Your task to perform on an android device: toggle data saver in the chrome app Image 0: 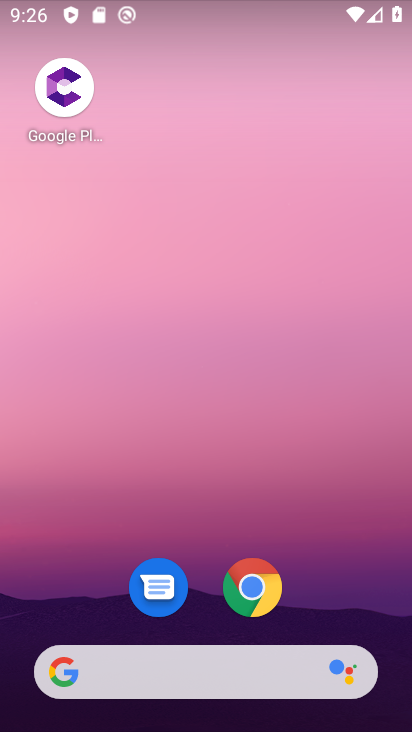
Step 0: click (251, 588)
Your task to perform on an android device: toggle data saver in the chrome app Image 1: 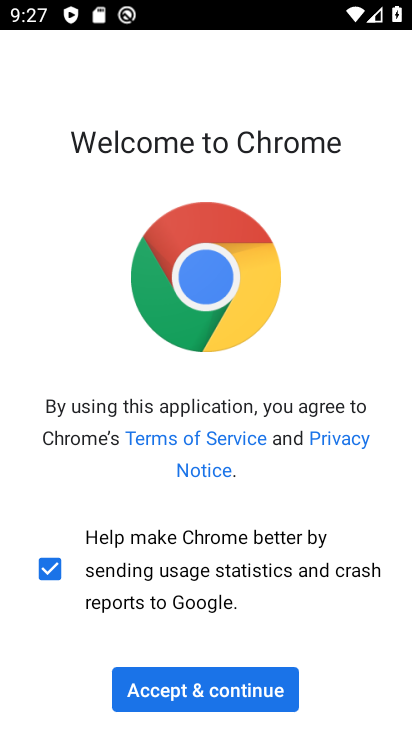
Step 1: click (230, 692)
Your task to perform on an android device: toggle data saver in the chrome app Image 2: 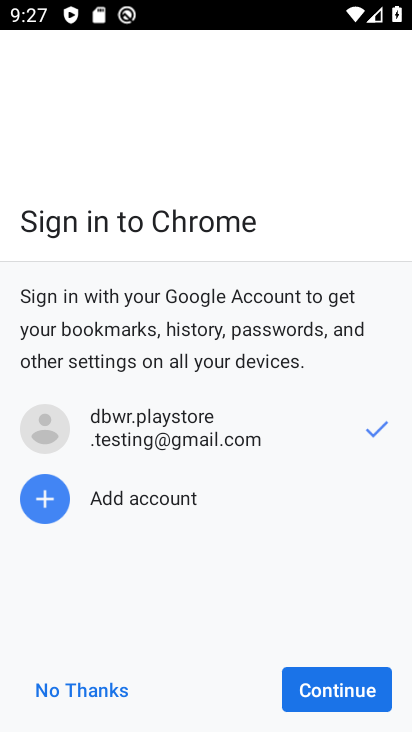
Step 2: click (346, 693)
Your task to perform on an android device: toggle data saver in the chrome app Image 3: 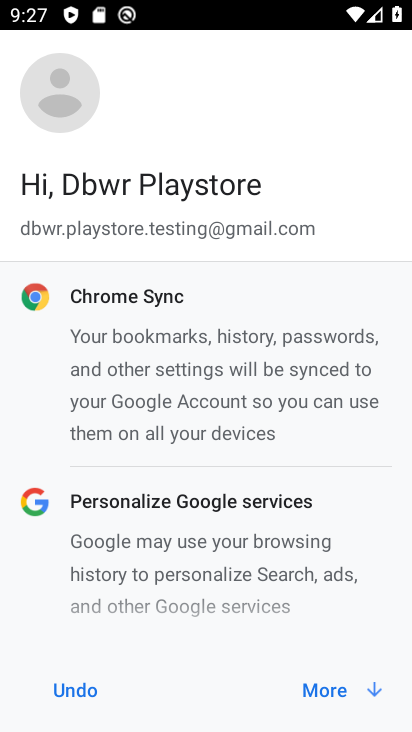
Step 3: click (346, 693)
Your task to perform on an android device: toggle data saver in the chrome app Image 4: 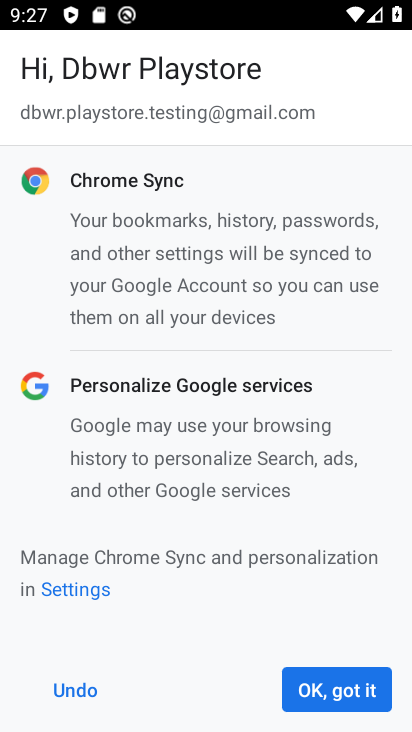
Step 4: click (346, 693)
Your task to perform on an android device: toggle data saver in the chrome app Image 5: 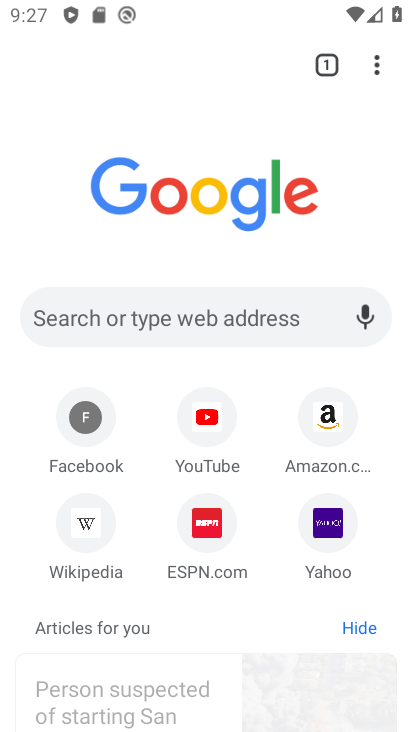
Step 5: click (373, 64)
Your task to perform on an android device: toggle data saver in the chrome app Image 6: 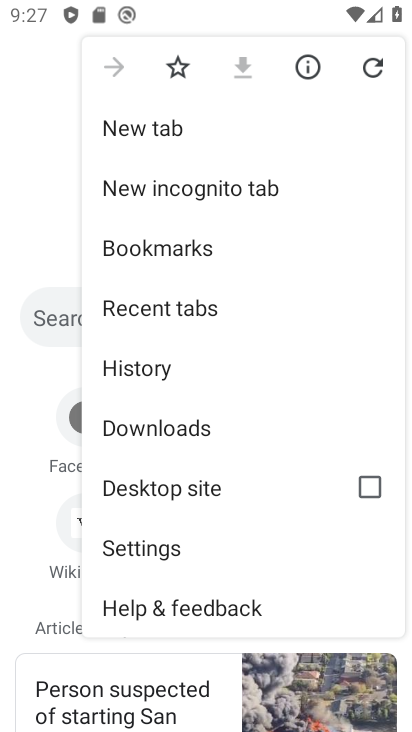
Step 6: click (149, 549)
Your task to perform on an android device: toggle data saver in the chrome app Image 7: 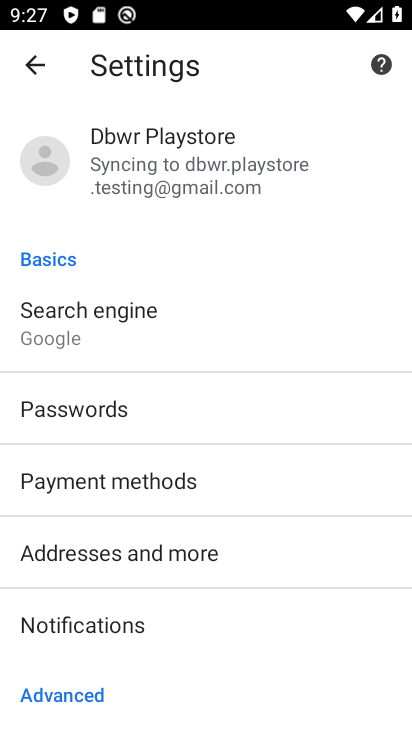
Step 7: drag from (192, 606) to (195, 226)
Your task to perform on an android device: toggle data saver in the chrome app Image 8: 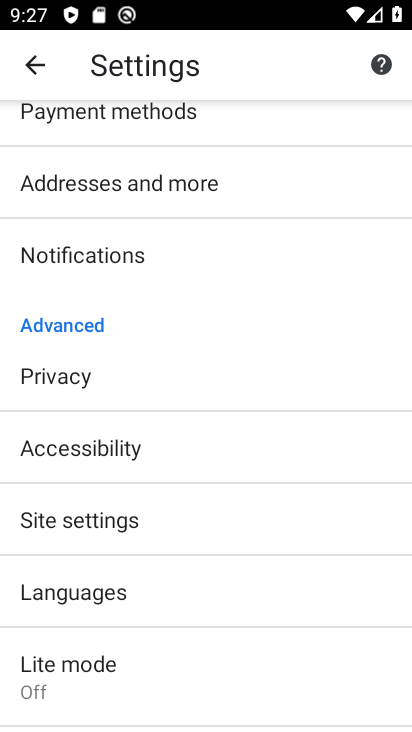
Step 8: click (62, 663)
Your task to perform on an android device: toggle data saver in the chrome app Image 9: 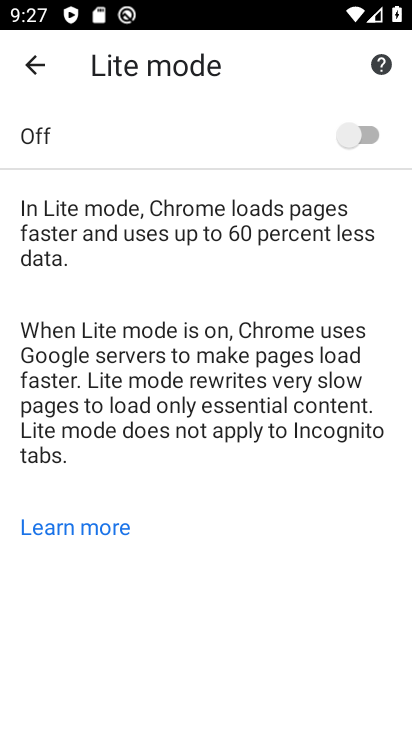
Step 9: click (368, 132)
Your task to perform on an android device: toggle data saver in the chrome app Image 10: 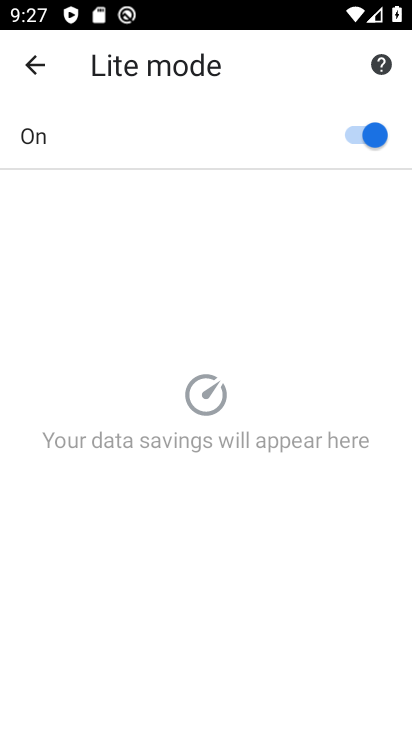
Step 10: task complete